Your task to perform on an android device: change the clock display to analog Image 0: 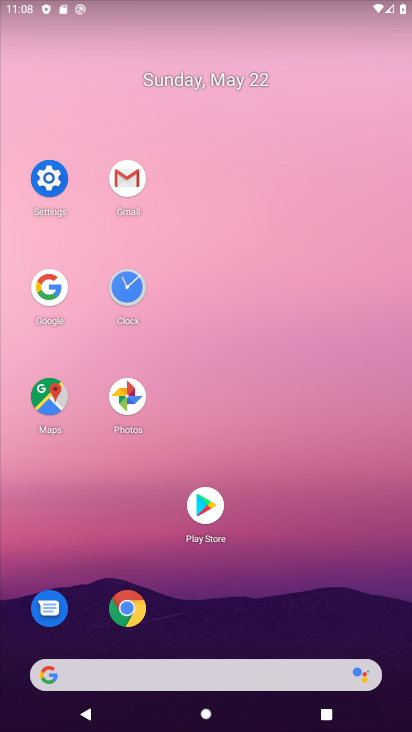
Step 0: click (122, 289)
Your task to perform on an android device: change the clock display to analog Image 1: 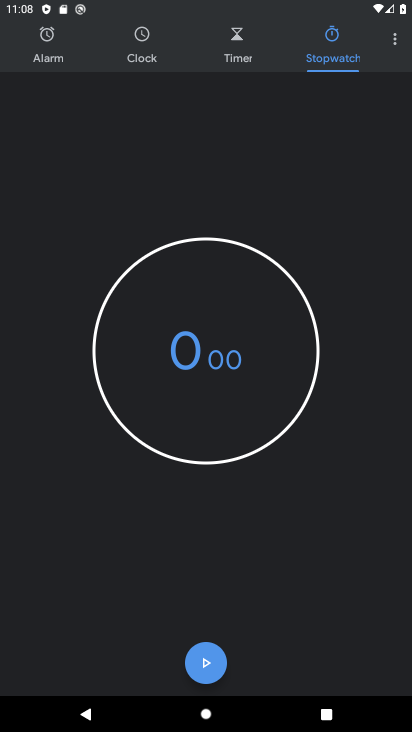
Step 1: click (389, 49)
Your task to perform on an android device: change the clock display to analog Image 2: 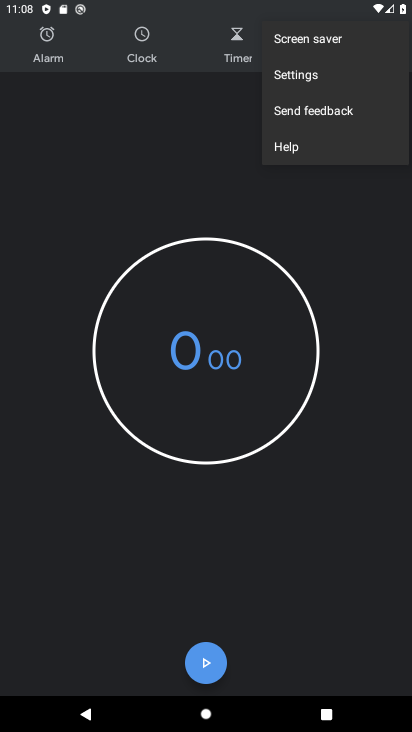
Step 2: click (309, 82)
Your task to perform on an android device: change the clock display to analog Image 3: 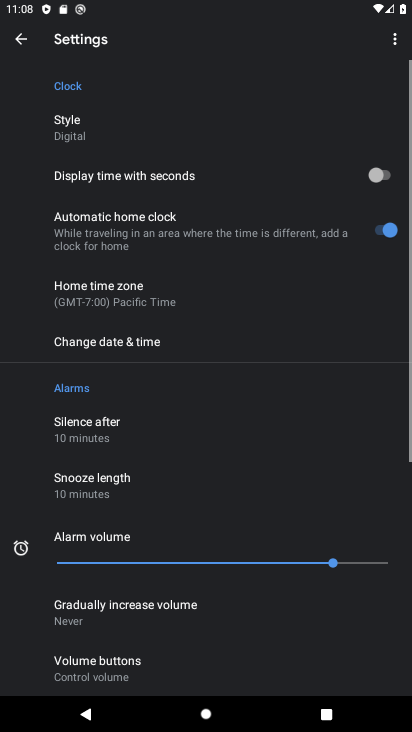
Step 3: click (67, 139)
Your task to perform on an android device: change the clock display to analog Image 4: 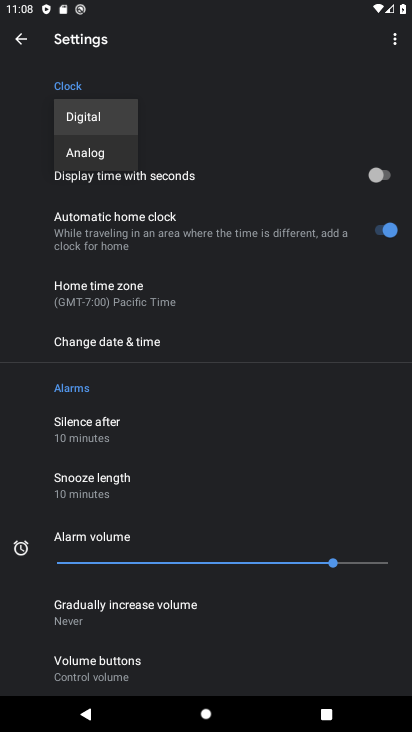
Step 4: click (96, 152)
Your task to perform on an android device: change the clock display to analog Image 5: 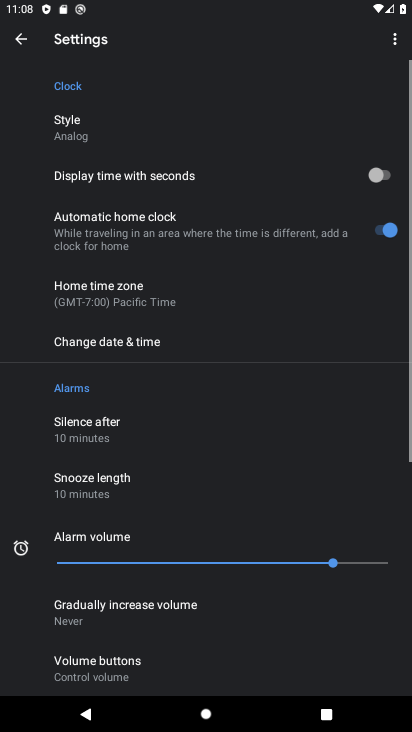
Step 5: task complete